Your task to perform on an android device: Search for seafood restaurants on Google Maps Image 0: 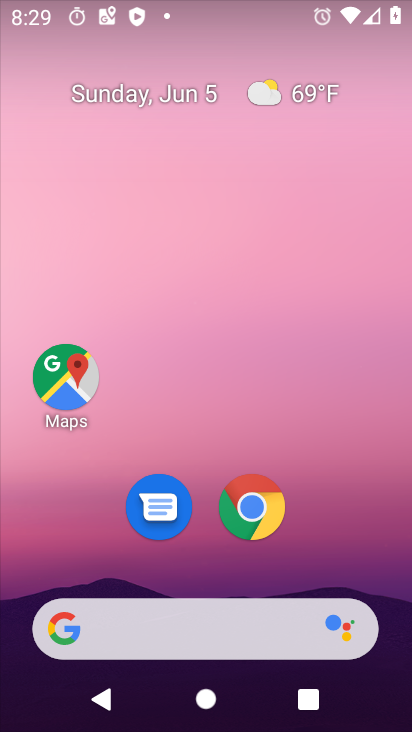
Step 0: drag from (367, 532) to (275, 21)
Your task to perform on an android device: Search for seafood restaurants on Google Maps Image 1: 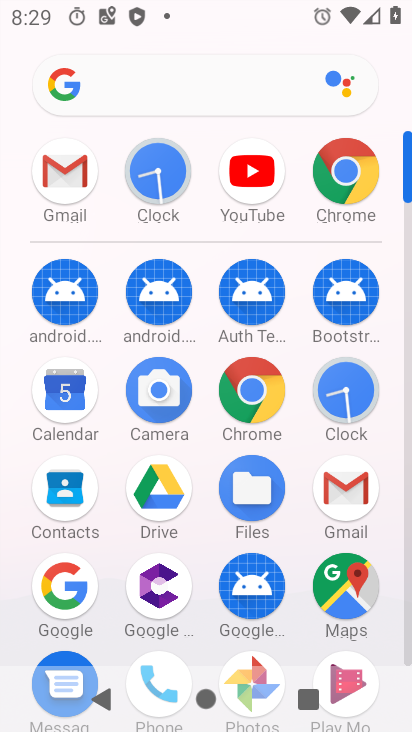
Step 1: click (339, 582)
Your task to perform on an android device: Search for seafood restaurants on Google Maps Image 2: 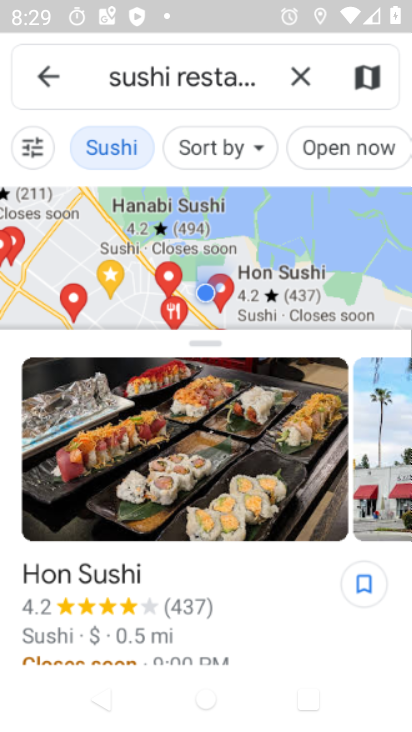
Step 2: click (51, 72)
Your task to perform on an android device: Search for seafood restaurants on Google Maps Image 3: 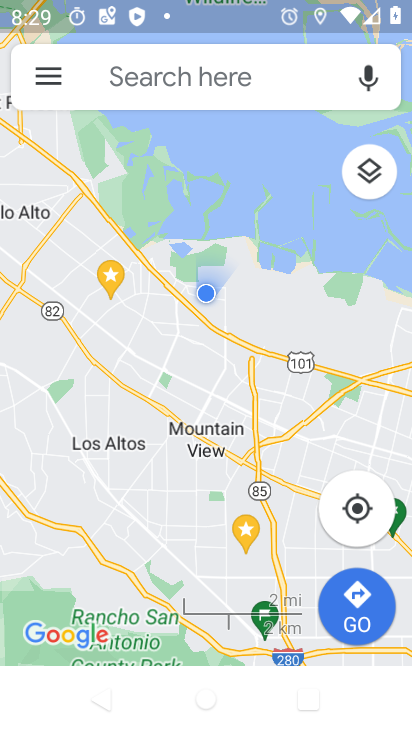
Step 3: click (260, 80)
Your task to perform on an android device: Search for seafood restaurants on Google Maps Image 4: 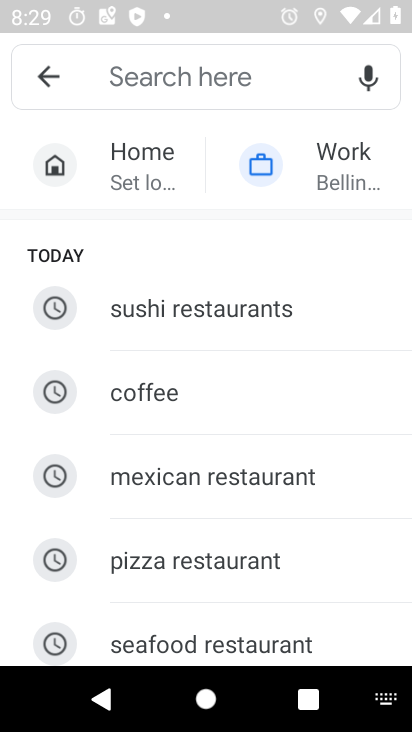
Step 4: click (246, 625)
Your task to perform on an android device: Search for seafood restaurants on Google Maps Image 5: 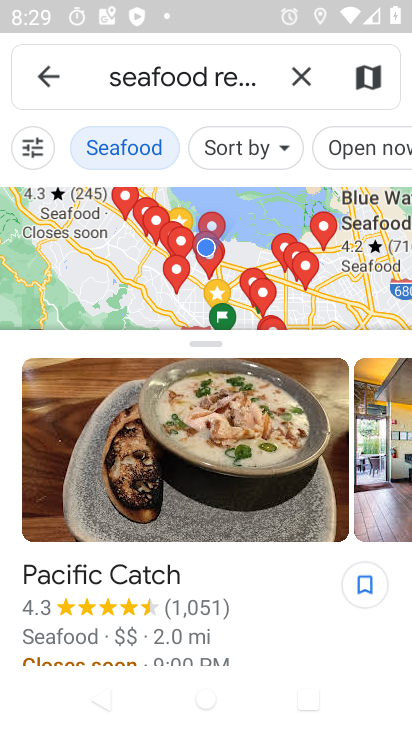
Step 5: task complete